Your task to perform on an android device: Open Google Maps and go to "Timeline" Image 0: 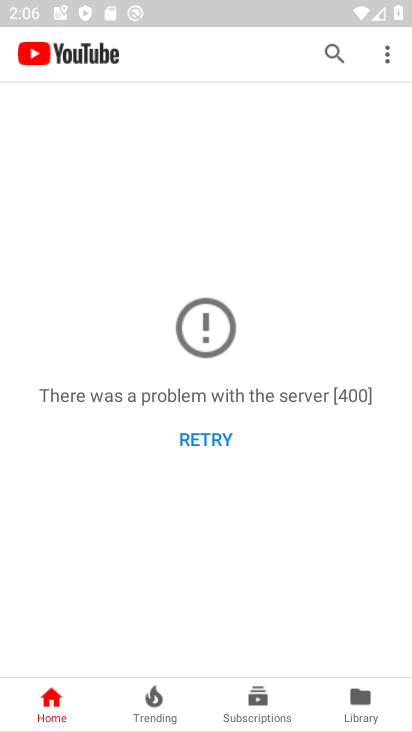
Step 0: press home button
Your task to perform on an android device: Open Google Maps and go to "Timeline" Image 1: 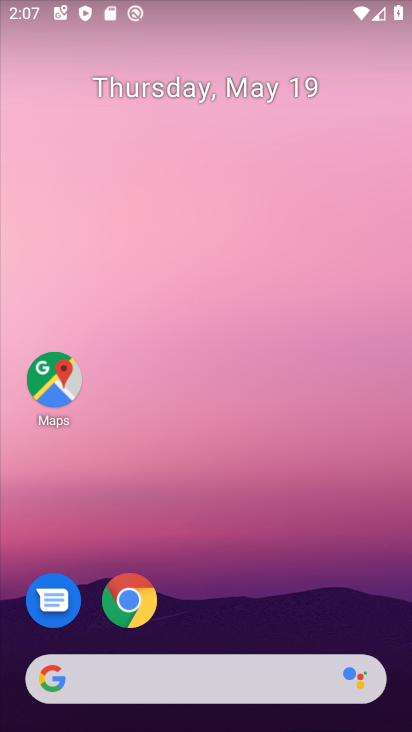
Step 1: drag from (144, 646) to (138, 226)
Your task to perform on an android device: Open Google Maps and go to "Timeline" Image 2: 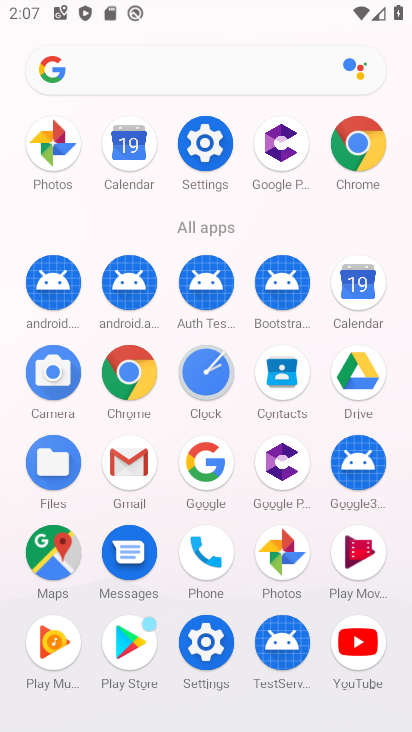
Step 2: click (43, 557)
Your task to perform on an android device: Open Google Maps and go to "Timeline" Image 3: 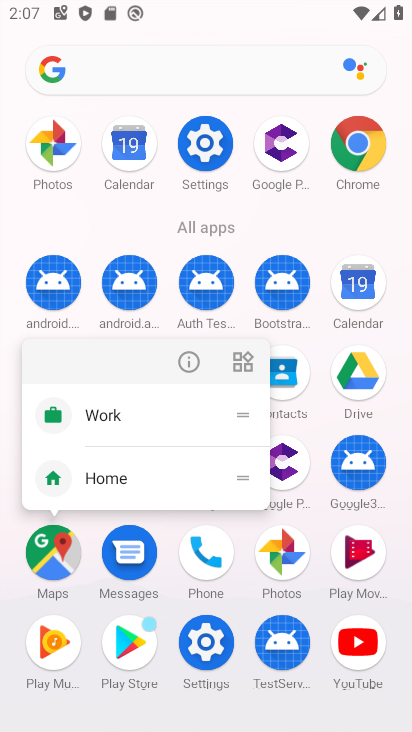
Step 3: click (47, 557)
Your task to perform on an android device: Open Google Maps and go to "Timeline" Image 4: 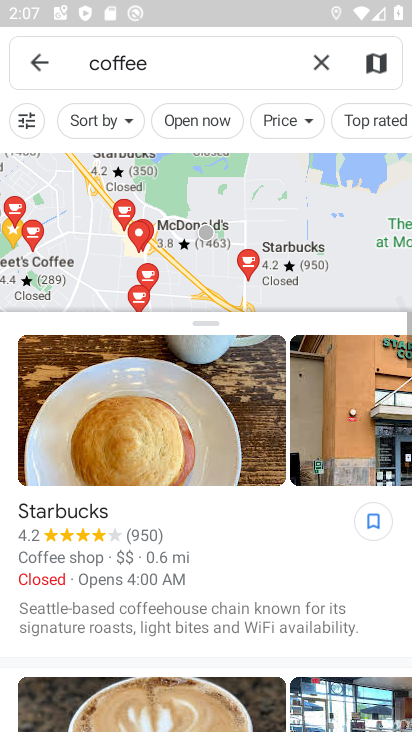
Step 4: click (319, 62)
Your task to perform on an android device: Open Google Maps and go to "Timeline" Image 5: 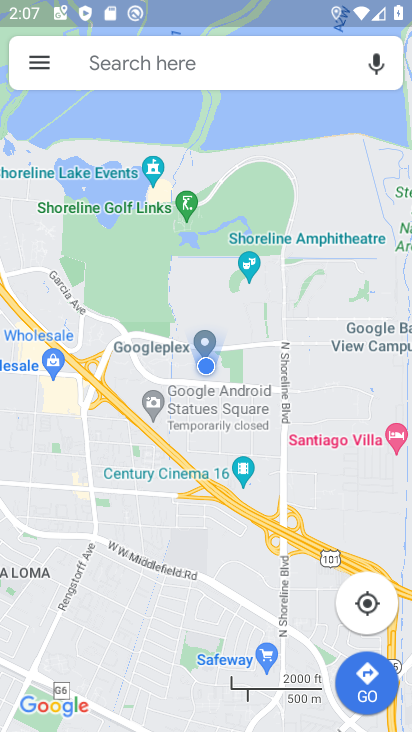
Step 5: click (38, 66)
Your task to perform on an android device: Open Google Maps and go to "Timeline" Image 6: 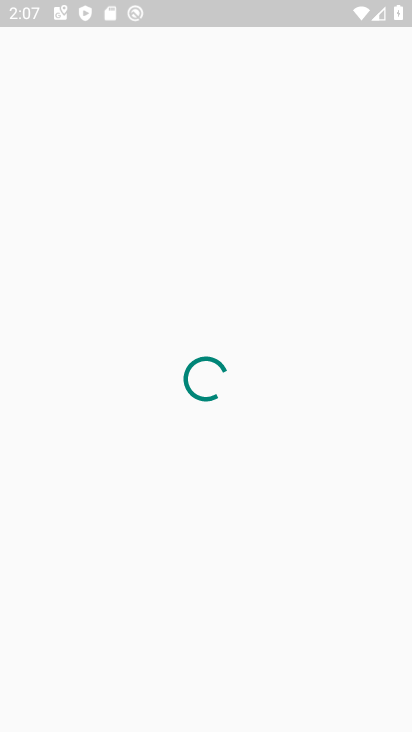
Step 6: click (138, 280)
Your task to perform on an android device: Open Google Maps and go to "Timeline" Image 7: 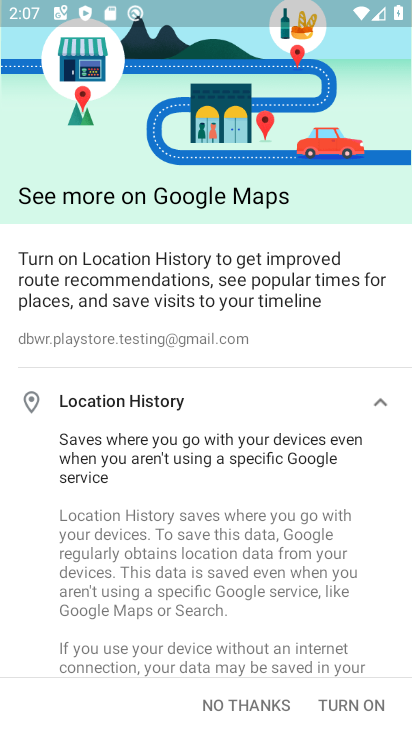
Step 7: click (369, 711)
Your task to perform on an android device: Open Google Maps and go to "Timeline" Image 8: 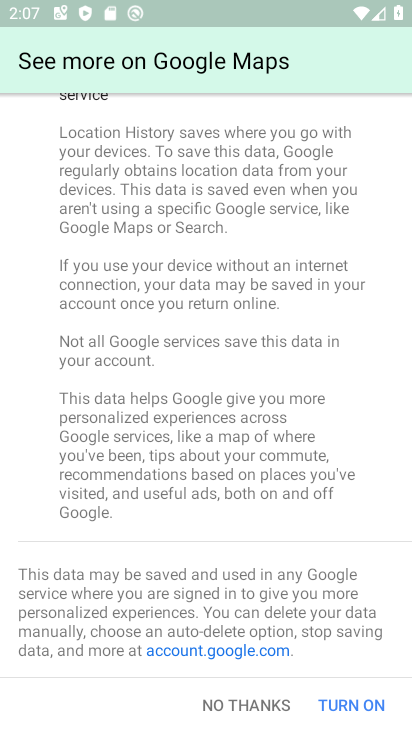
Step 8: click (319, 710)
Your task to perform on an android device: Open Google Maps and go to "Timeline" Image 9: 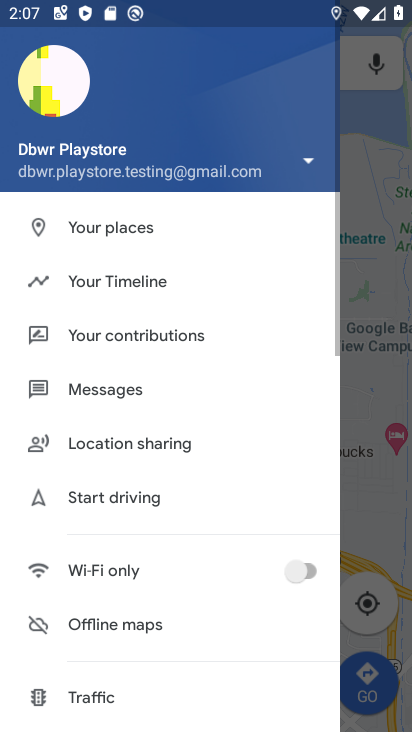
Step 9: click (120, 279)
Your task to perform on an android device: Open Google Maps and go to "Timeline" Image 10: 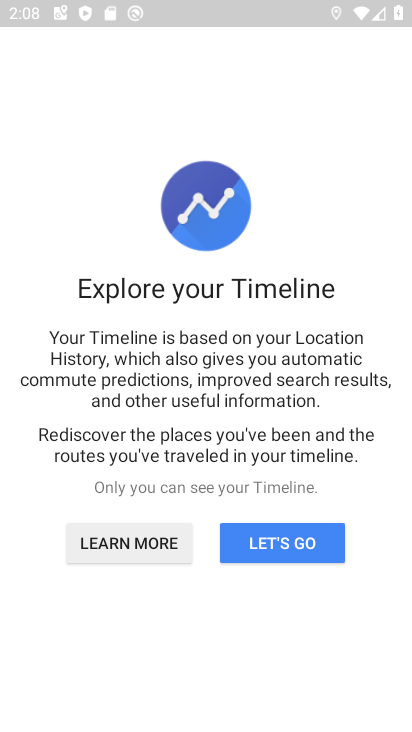
Step 10: click (327, 548)
Your task to perform on an android device: Open Google Maps and go to "Timeline" Image 11: 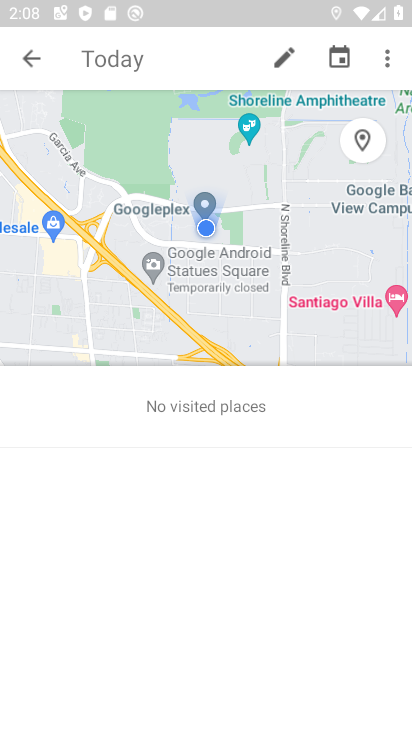
Step 11: task complete